Your task to perform on an android device: see creations saved in the google photos Image 0: 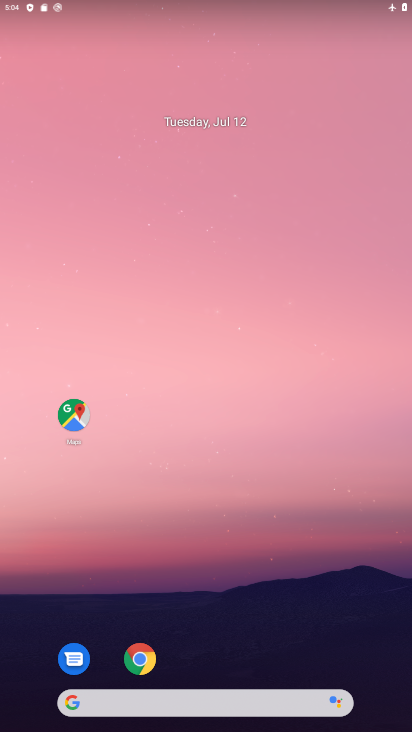
Step 0: drag from (366, 635) to (313, 140)
Your task to perform on an android device: see creations saved in the google photos Image 1: 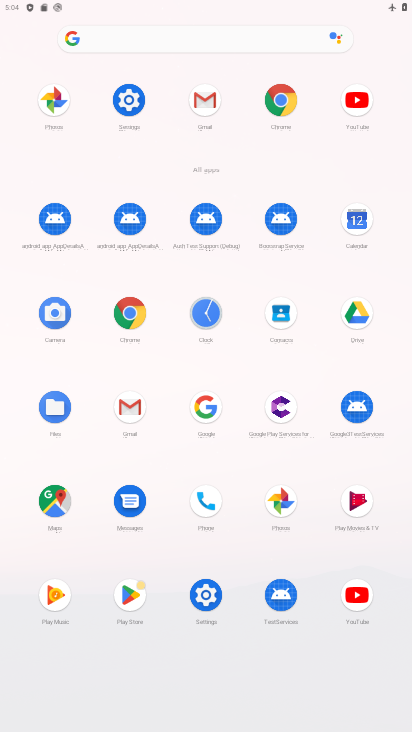
Step 1: click (282, 501)
Your task to perform on an android device: see creations saved in the google photos Image 2: 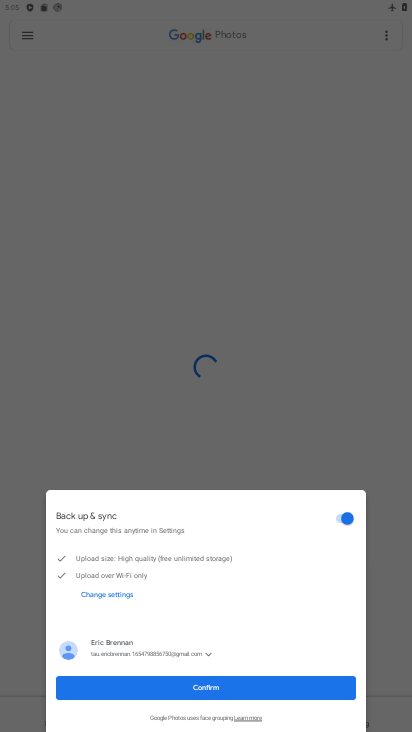
Step 2: click (199, 692)
Your task to perform on an android device: see creations saved in the google photos Image 3: 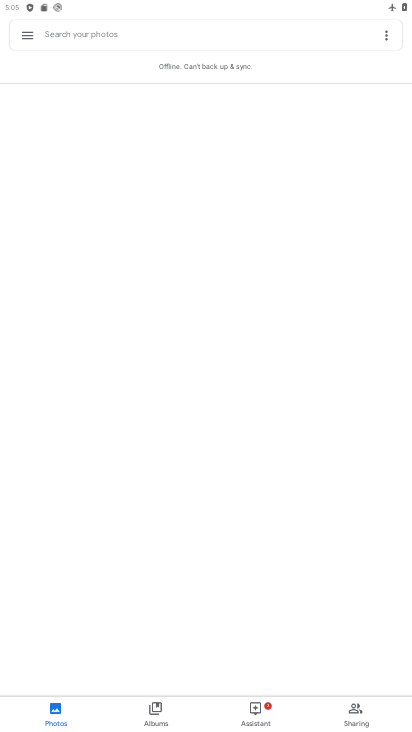
Step 3: task complete